Your task to perform on an android device: Open network settings Image 0: 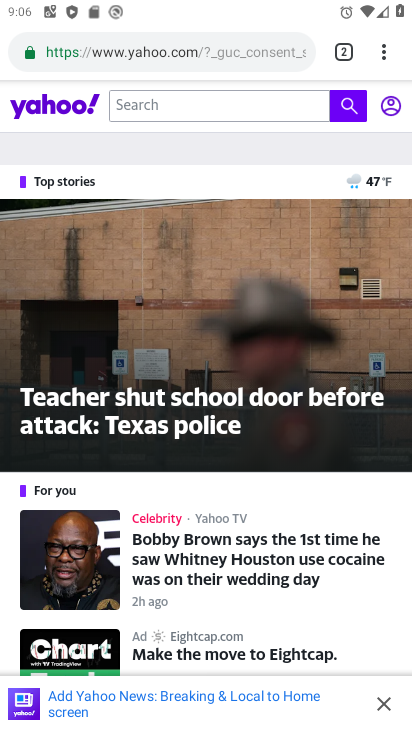
Step 0: press home button
Your task to perform on an android device: Open network settings Image 1: 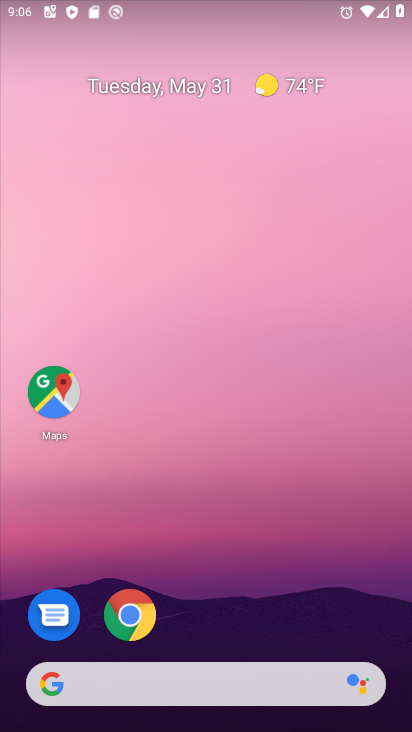
Step 1: drag from (207, 625) to (197, 205)
Your task to perform on an android device: Open network settings Image 2: 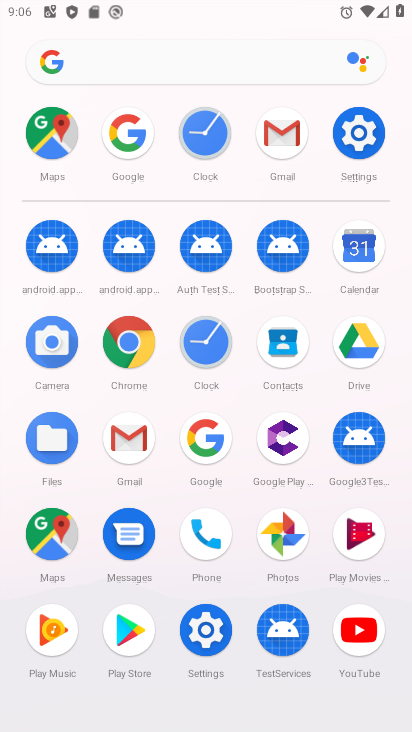
Step 2: click (348, 141)
Your task to perform on an android device: Open network settings Image 3: 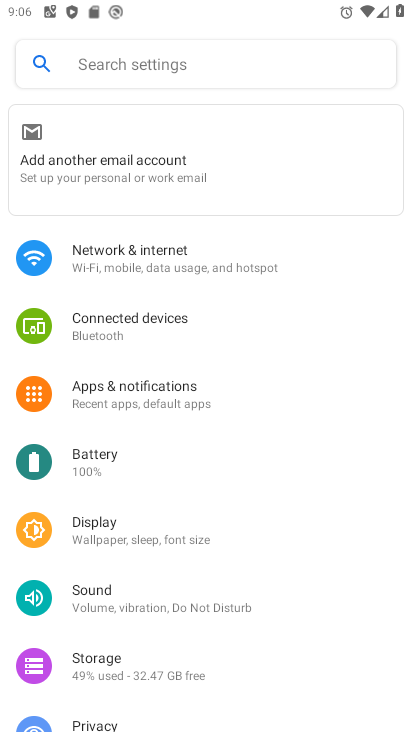
Step 3: click (170, 259)
Your task to perform on an android device: Open network settings Image 4: 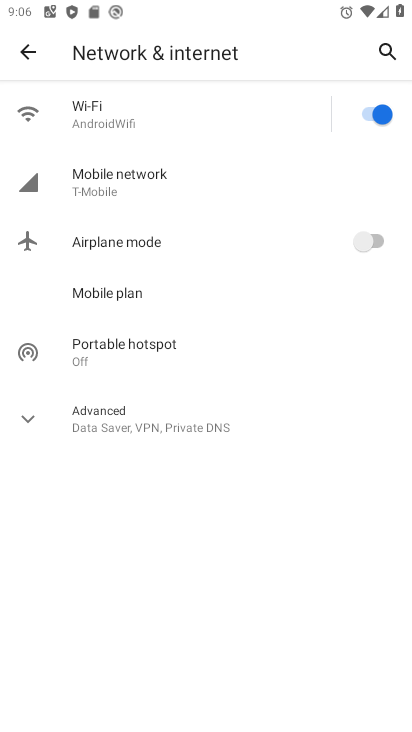
Step 4: click (141, 178)
Your task to perform on an android device: Open network settings Image 5: 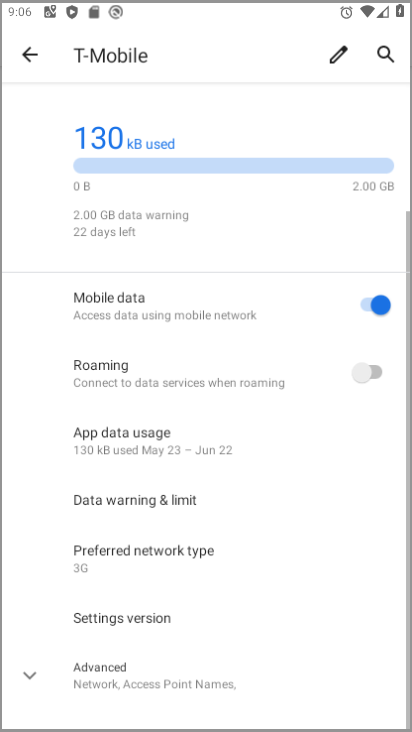
Step 5: task complete